Your task to perform on an android device: Open Google Chrome Image 0: 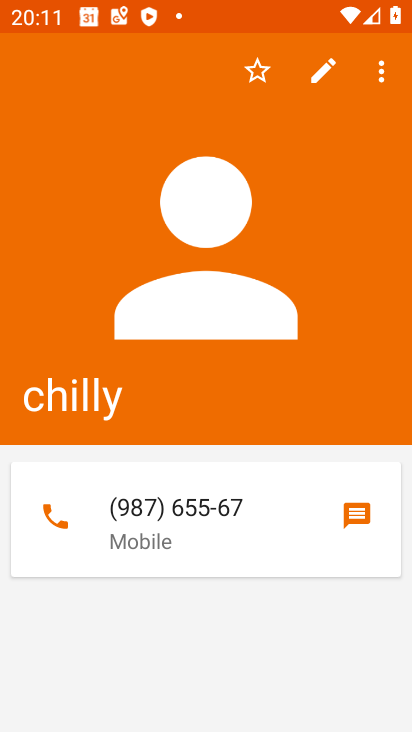
Step 0: press home button
Your task to perform on an android device: Open Google Chrome Image 1: 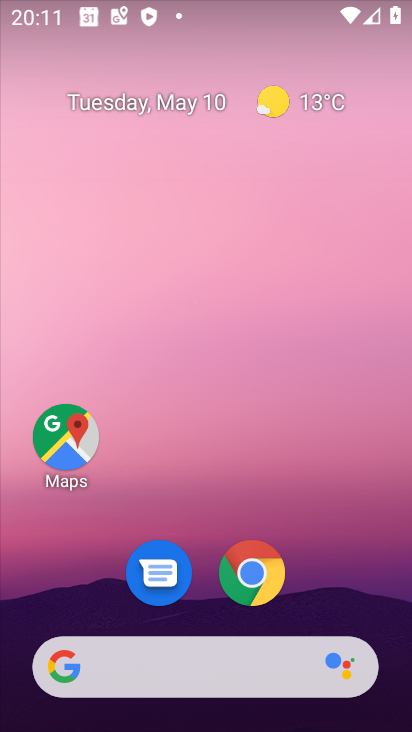
Step 1: click (247, 573)
Your task to perform on an android device: Open Google Chrome Image 2: 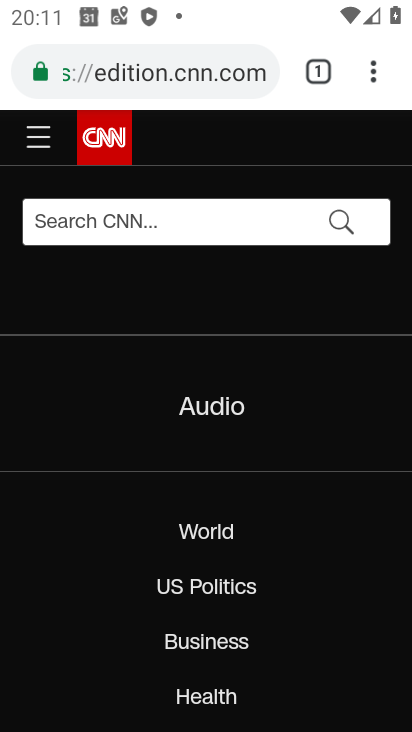
Step 2: task complete